Your task to perform on an android device: turn on translation in the chrome app Image 0: 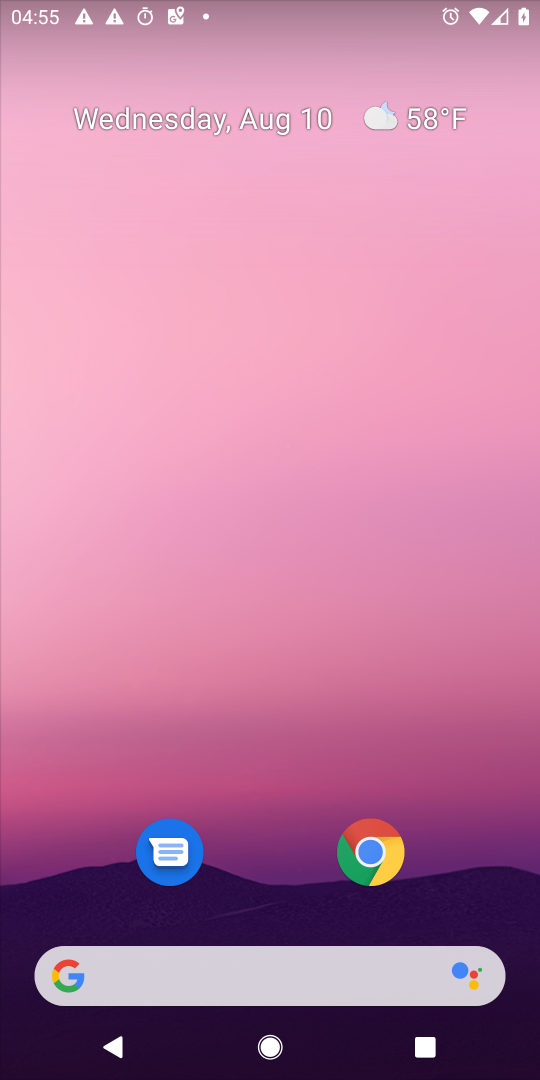
Step 0: drag from (262, 759) to (135, 288)
Your task to perform on an android device: turn on translation in the chrome app Image 1: 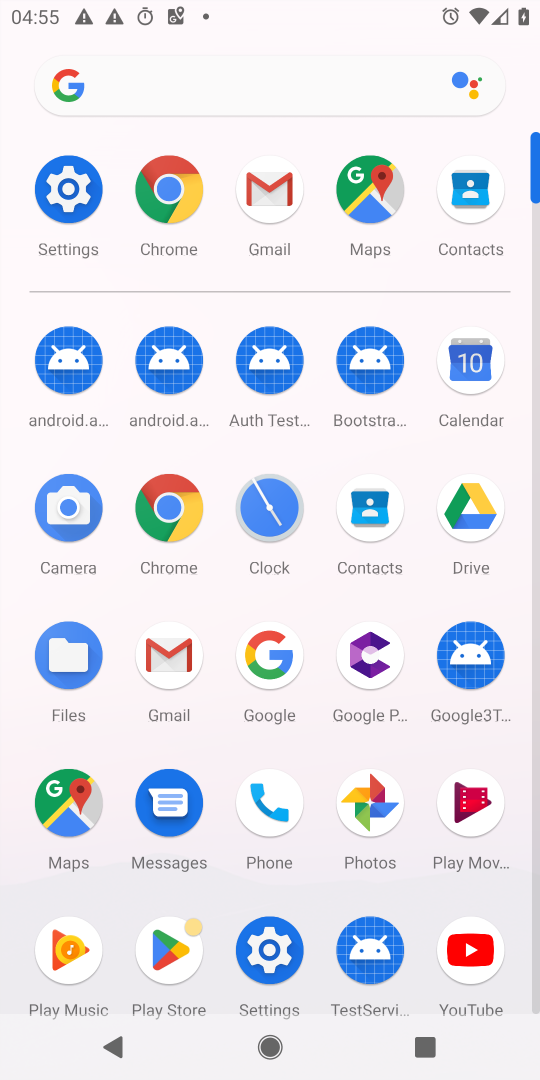
Step 1: click (185, 524)
Your task to perform on an android device: turn on translation in the chrome app Image 2: 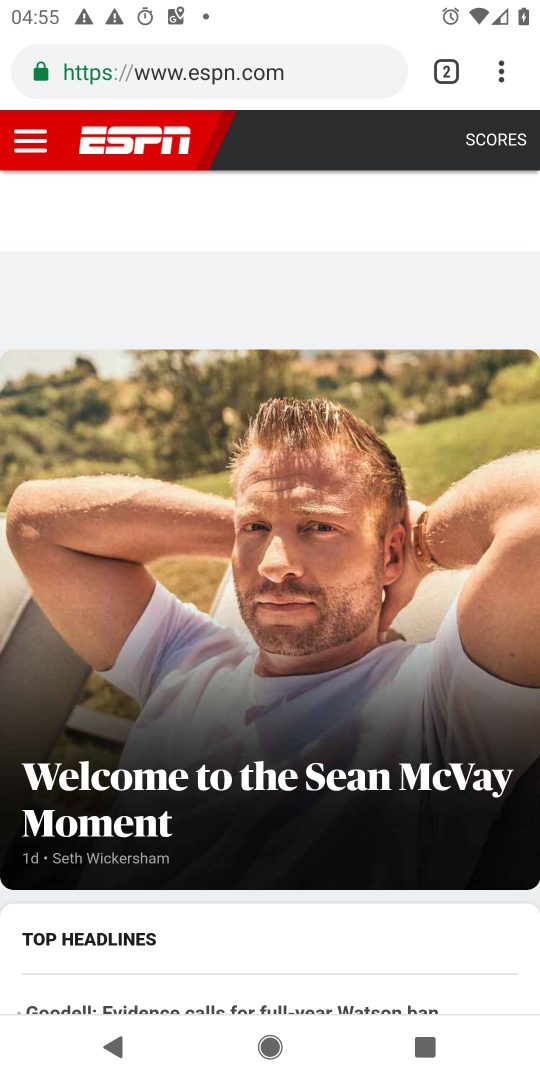
Step 2: drag from (508, 71) to (390, 863)
Your task to perform on an android device: turn on translation in the chrome app Image 3: 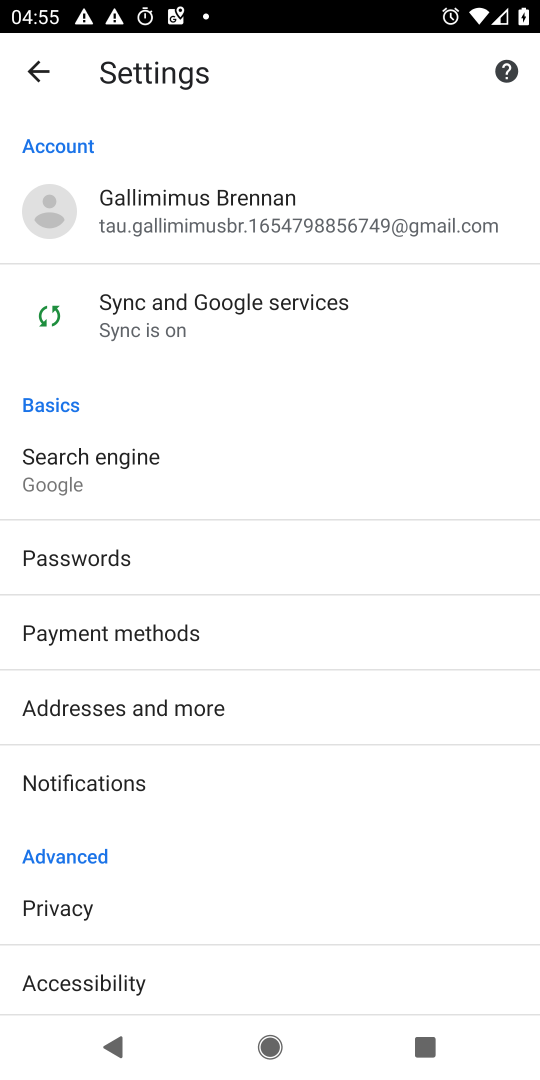
Step 3: drag from (268, 907) to (188, 131)
Your task to perform on an android device: turn on translation in the chrome app Image 4: 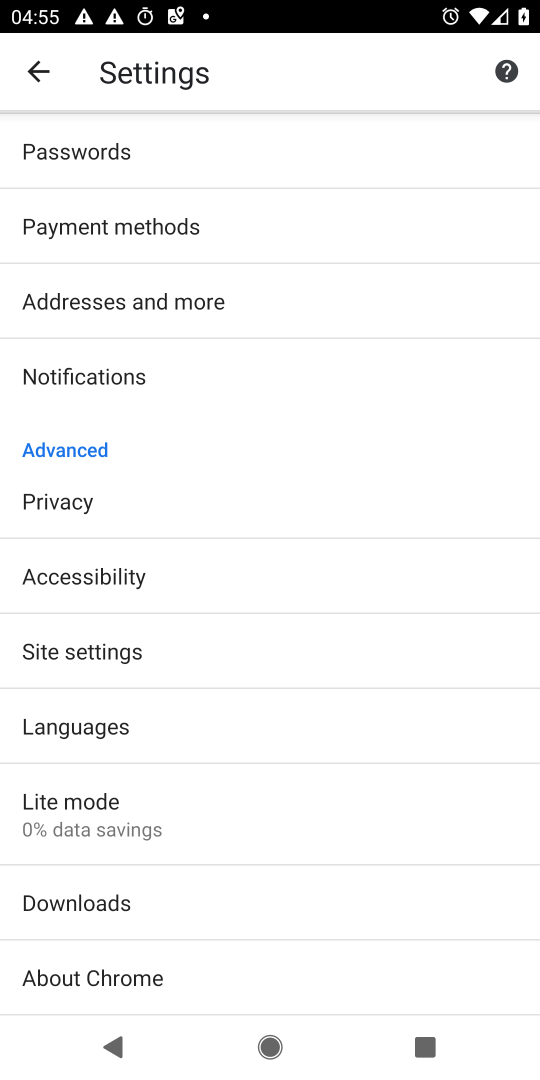
Step 4: click (46, 729)
Your task to perform on an android device: turn on translation in the chrome app Image 5: 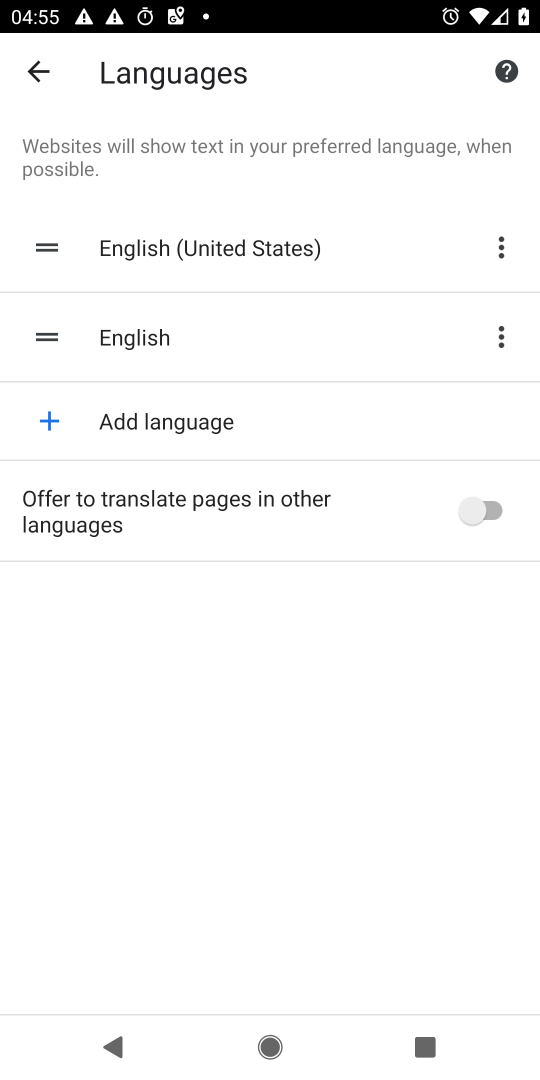
Step 5: click (459, 501)
Your task to perform on an android device: turn on translation in the chrome app Image 6: 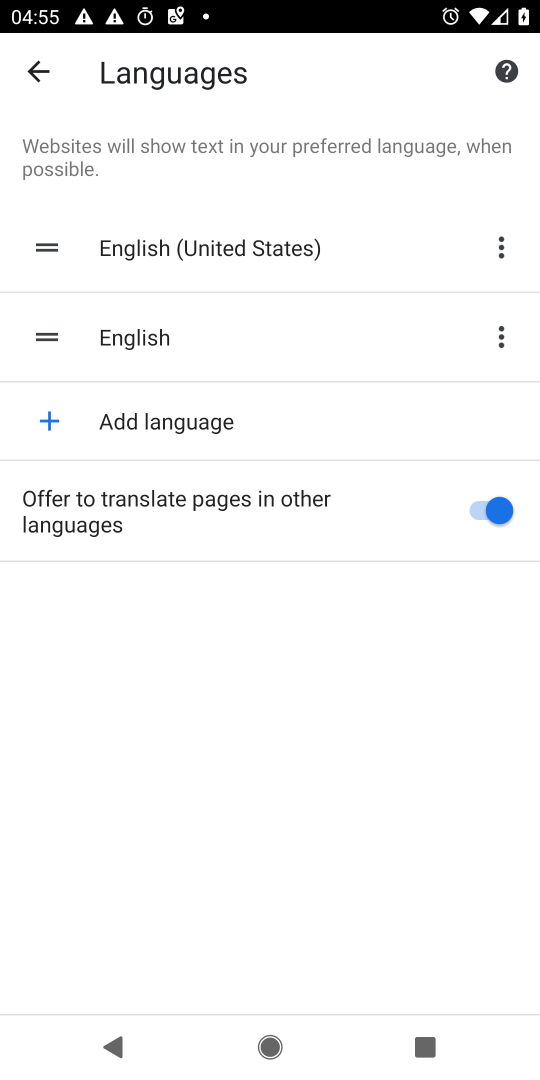
Step 6: task complete